Your task to perform on an android device: read, delete, or share a saved page in the chrome app Image 0: 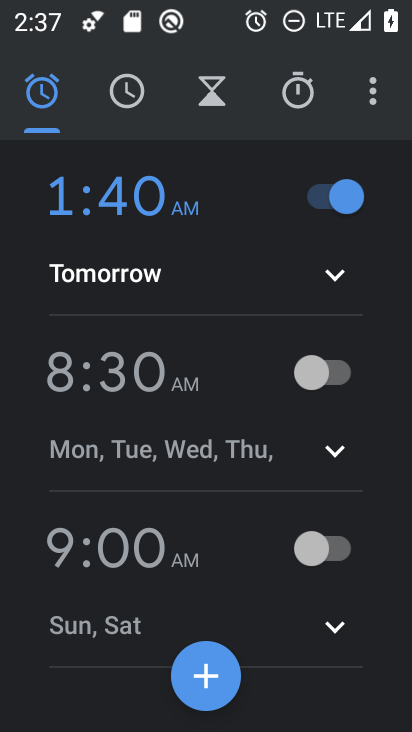
Step 0: press home button
Your task to perform on an android device: read, delete, or share a saved page in the chrome app Image 1: 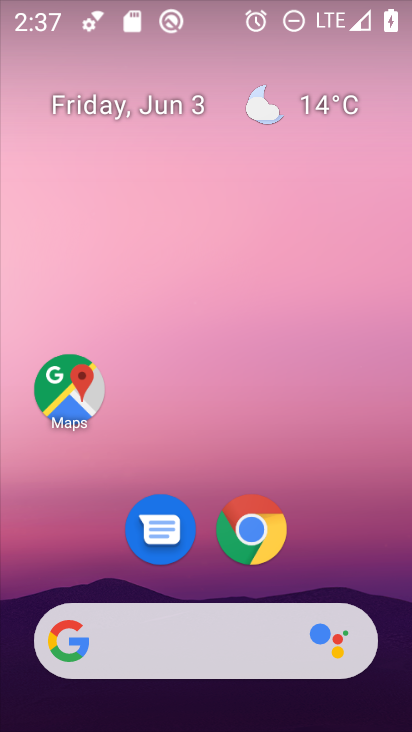
Step 1: drag from (352, 571) to (356, 178)
Your task to perform on an android device: read, delete, or share a saved page in the chrome app Image 2: 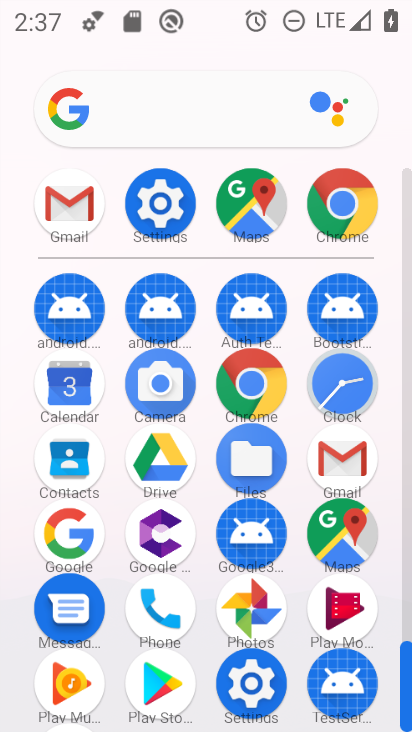
Step 2: click (265, 390)
Your task to perform on an android device: read, delete, or share a saved page in the chrome app Image 3: 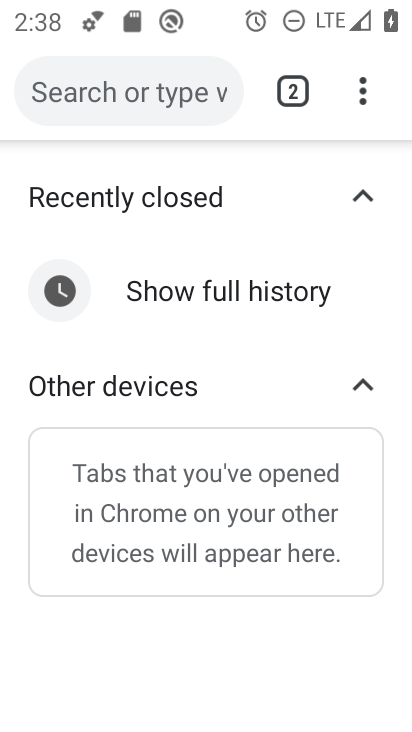
Step 3: click (362, 100)
Your task to perform on an android device: read, delete, or share a saved page in the chrome app Image 4: 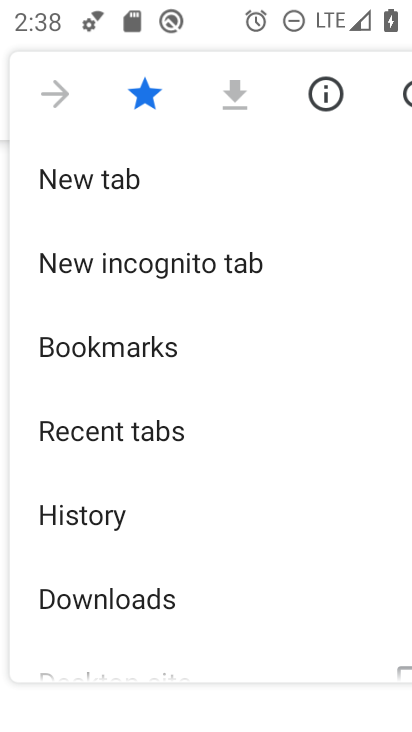
Step 4: drag from (278, 478) to (297, 338)
Your task to perform on an android device: read, delete, or share a saved page in the chrome app Image 5: 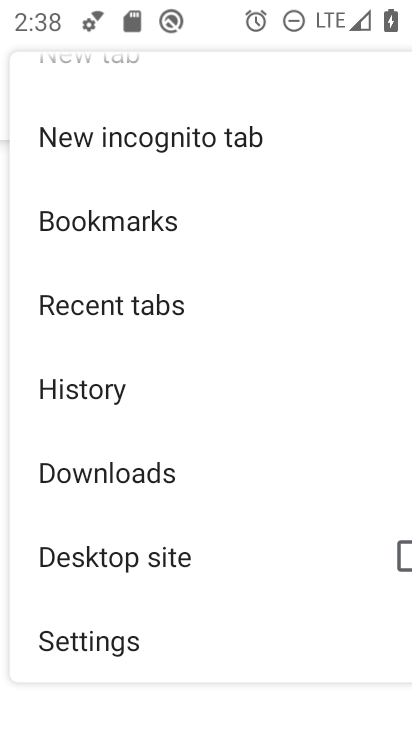
Step 5: drag from (293, 543) to (311, 285)
Your task to perform on an android device: read, delete, or share a saved page in the chrome app Image 6: 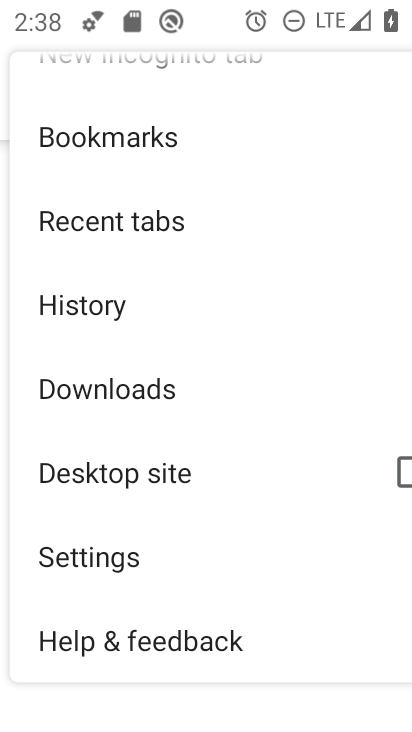
Step 6: click (159, 398)
Your task to perform on an android device: read, delete, or share a saved page in the chrome app Image 7: 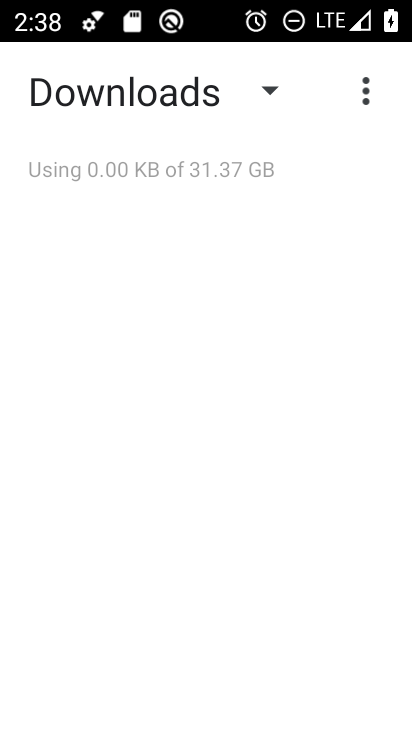
Step 7: click (267, 99)
Your task to perform on an android device: read, delete, or share a saved page in the chrome app Image 8: 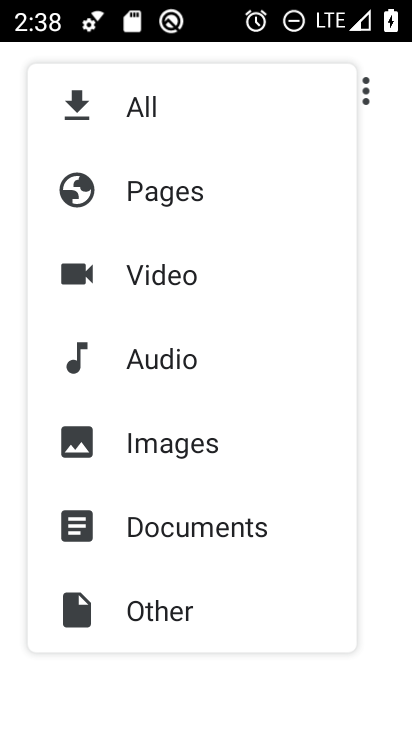
Step 8: click (213, 203)
Your task to perform on an android device: read, delete, or share a saved page in the chrome app Image 9: 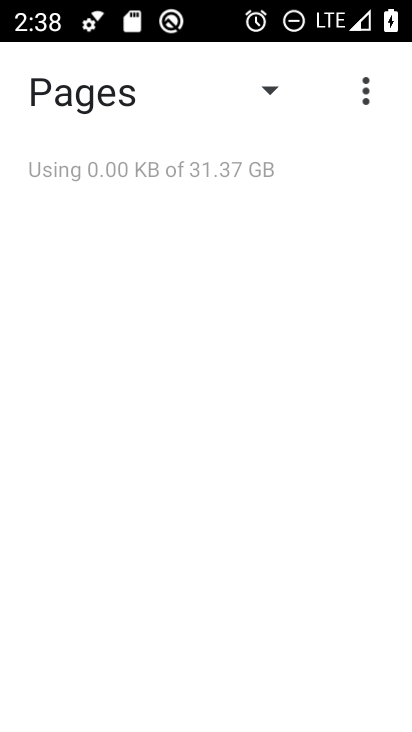
Step 9: task complete